Your task to perform on an android device: manage bookmarks in the chrome app Image 0: 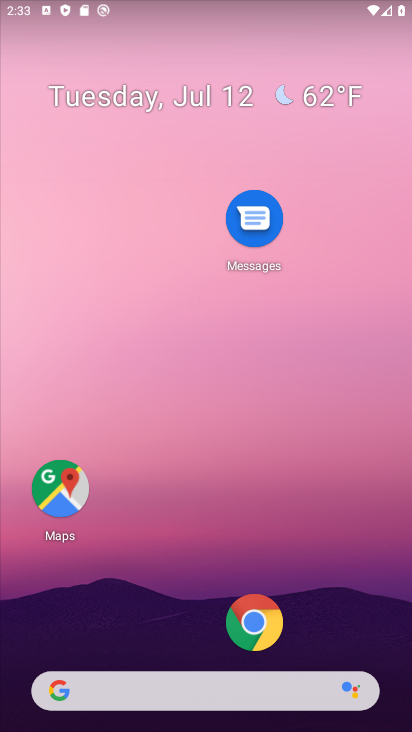
Step 0: click (254, 616)
Your task to perform on an android device: manage bookmarks in the chrome app Image 1: 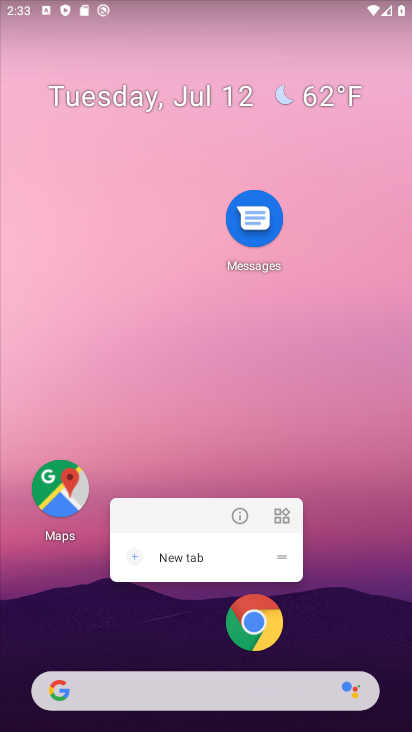
Step 1: click (249, 611)
Your task to perform on an android device: manage bookmarks in the chrome app Image 2: 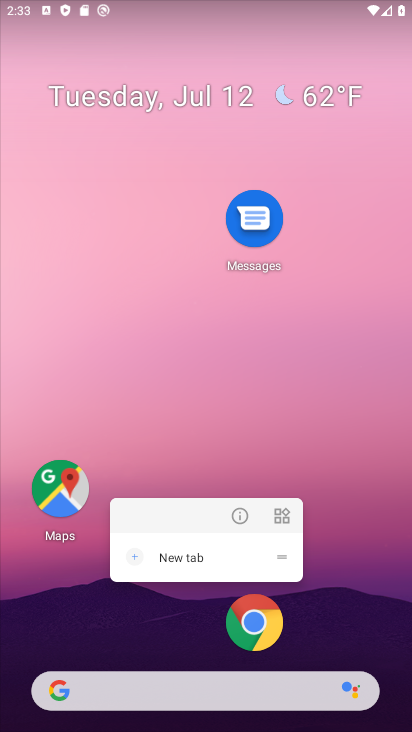
Step 2: click (249, 611)
Your task to perform on an android device: manage bookmarks in the chrome app Image 3: 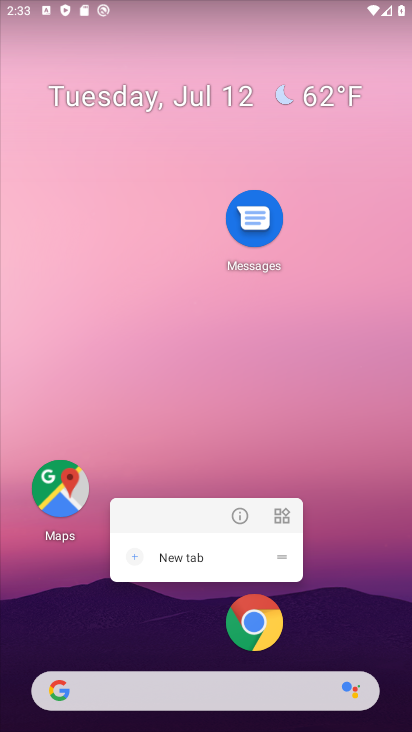
Step 3: click (248, 615)
Your task to perform on an android device: manage bookmarks in the chrome app Image 4: 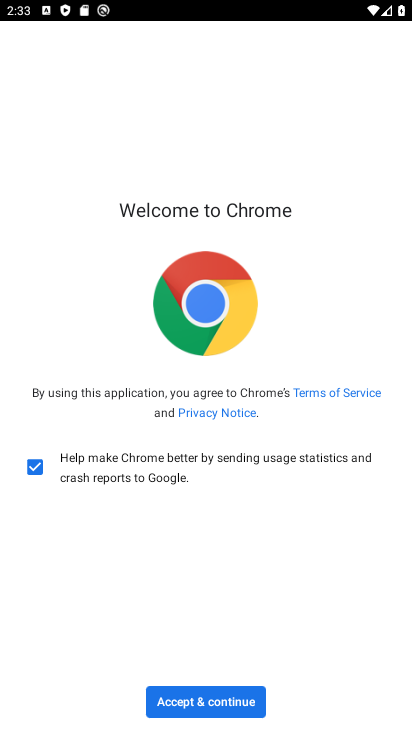
Step 4: click (199, 696)
Your task to perform on an android device: manage bookmarks in the chrome app Image 5: 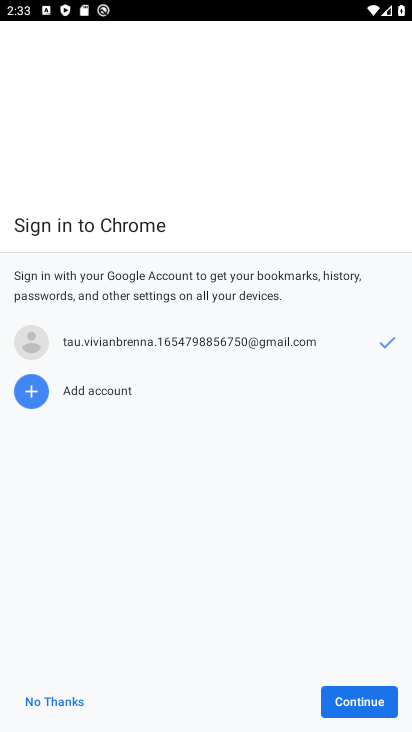
Step 5: click (364, 700)
Your task to perform on an android device: manage bookmarks in the chrome app Image 6: 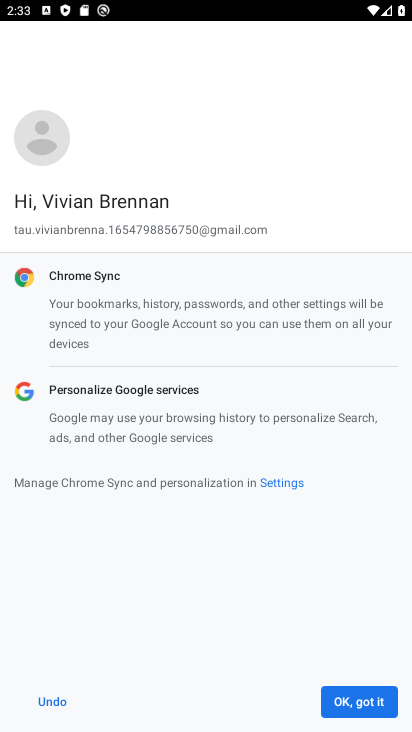
Step 6: click (350, 696)
Your task to perform on an android device: manage bookmarks in the chrome app Image 7: 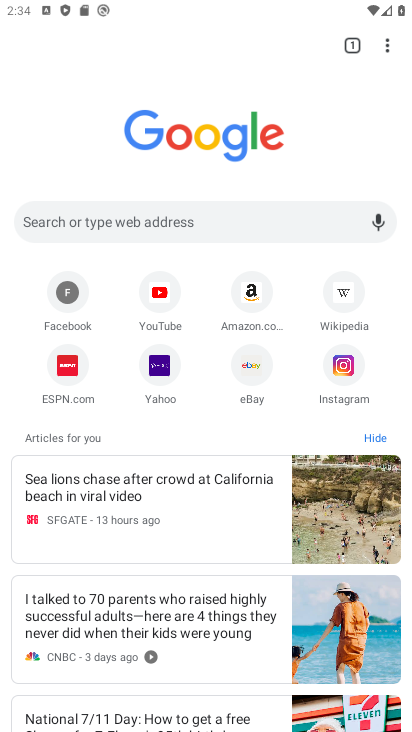
Step 7: click (388, 40)
Your task to perform on an android device: manage bookmarks in the chrome app Image 8: 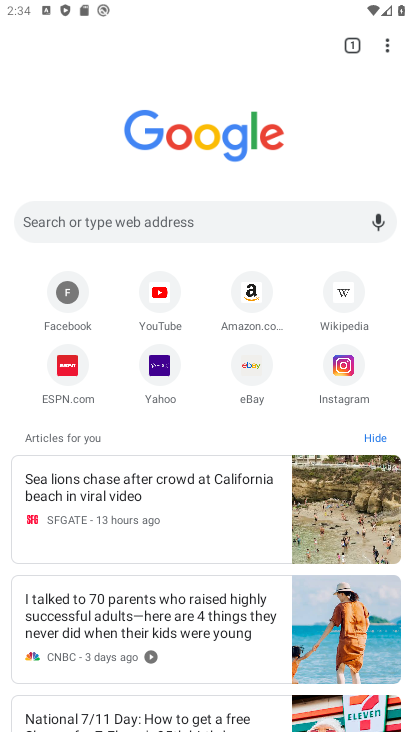
Step 8: click (387, 47)
Your task to perform on an android device: manage bookmarks in the chrome app Image 9: 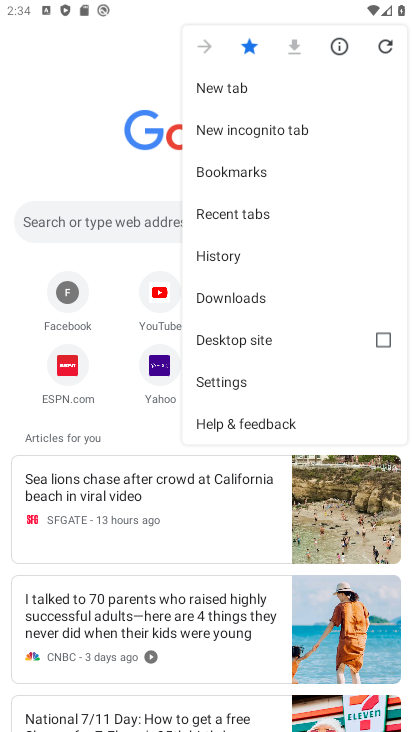
Step 9: click (269, 168)
Your task to perform on an android device: manage bookmarks in the chrome app Image 10: 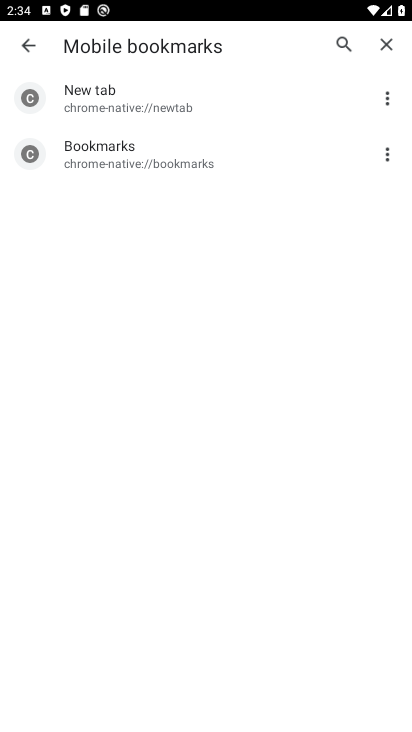
Step 10: task complete